Your task to perform on an android device: set the stopwatch Image 0: 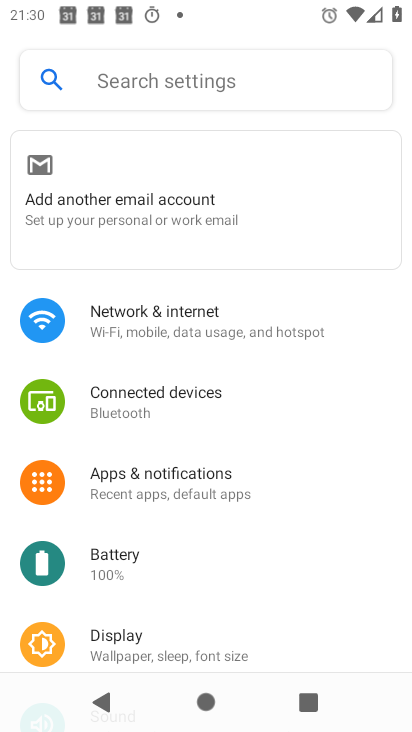
Step 0: press home button
Your task to perform on an android device: set the stopwatch Image 1: 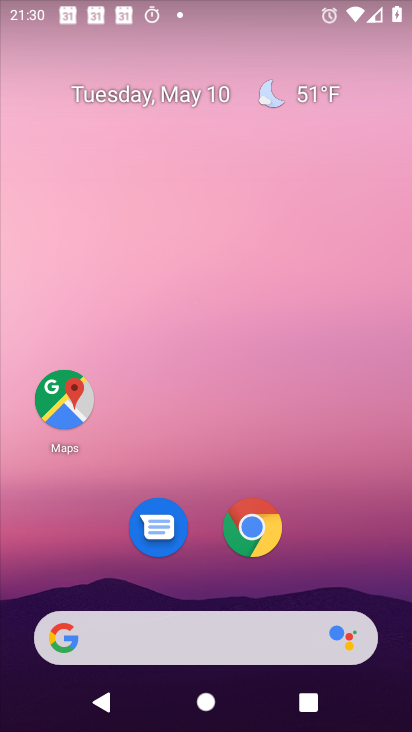
Step 1: drag from (198, 596) to (247, 8)
Your task to perform on an android device: set the stopwatch Image 2: 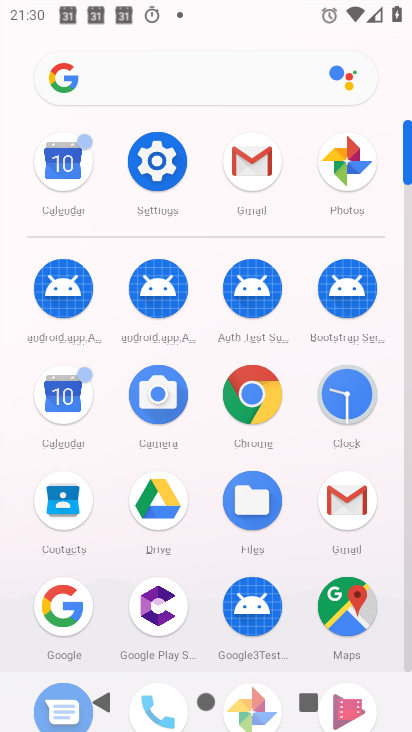
Step 2: click (341, 407)
Your task to perform on an android device: set the stopwatch Image 3: 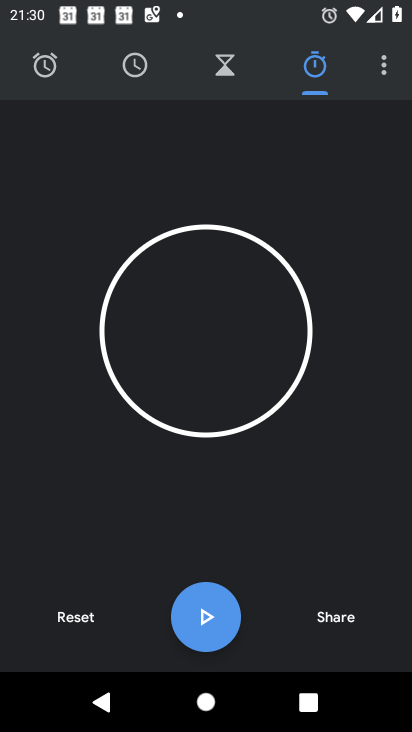
Step 3: click (207, 611)
Your task to perform on an android device: set the stopwatch Image 4: 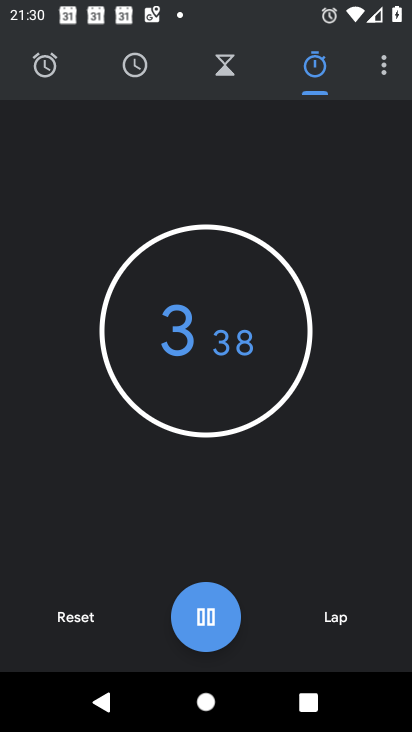
Step 4: click (207, 611)
Your task to perform on an android device: set the stopwatch Image 5: 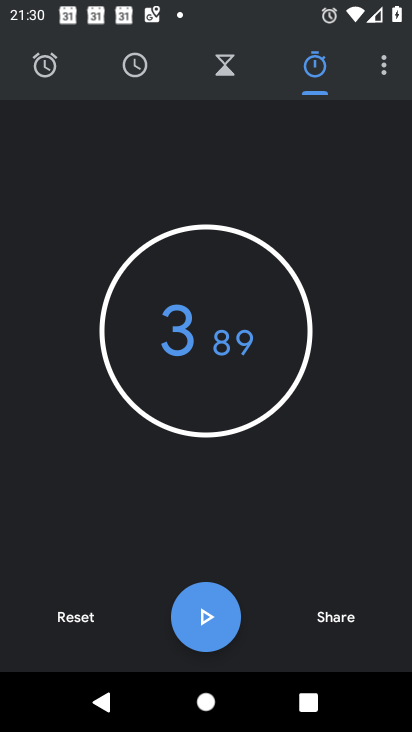
Step 5: task complete